Your task to perform on an android device: turn on bluetooth scan Image 0: 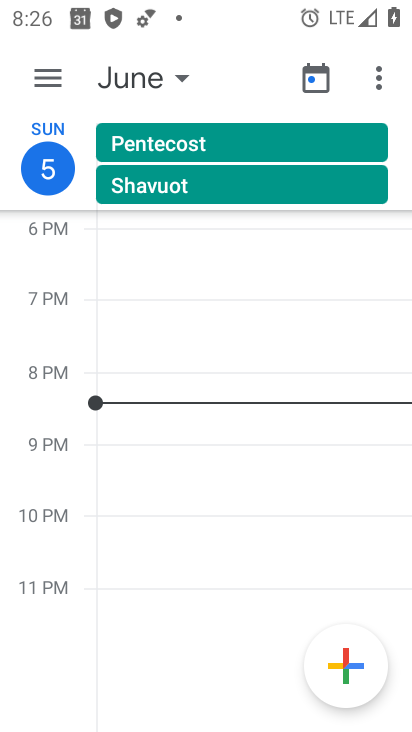
Step 0: press home button
Your task to perform on an android device: turn on bluetooth scan Image 1: 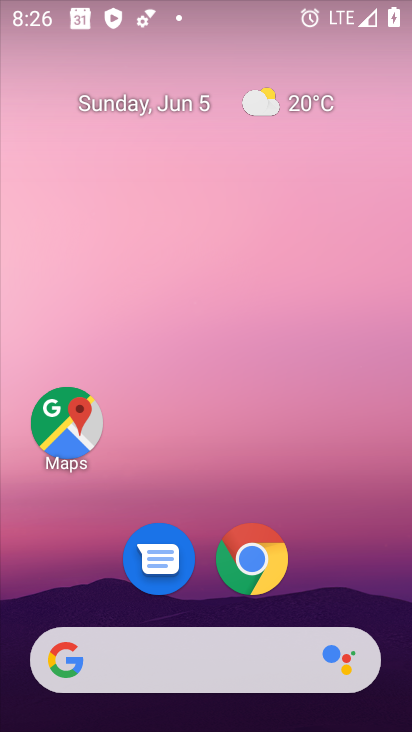
Step 1: drag from (364, 464) to (318, 152)
Your task to perform on an android device: turn on bluetooth scan Image 2: 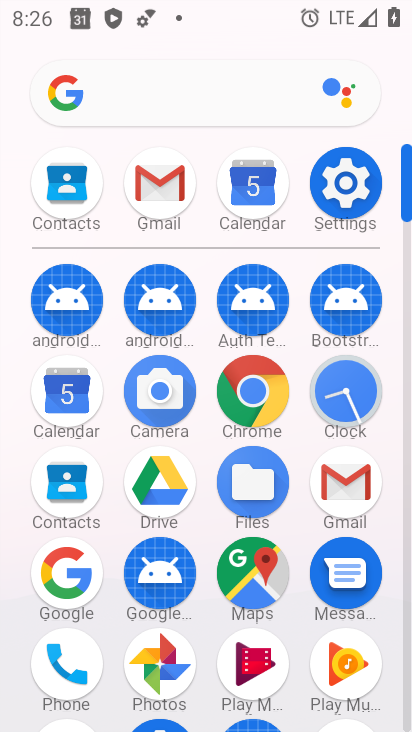
Step 2: click (341, 168)
Your task to perform on an android device: turn on bluetooth scan Image 3: 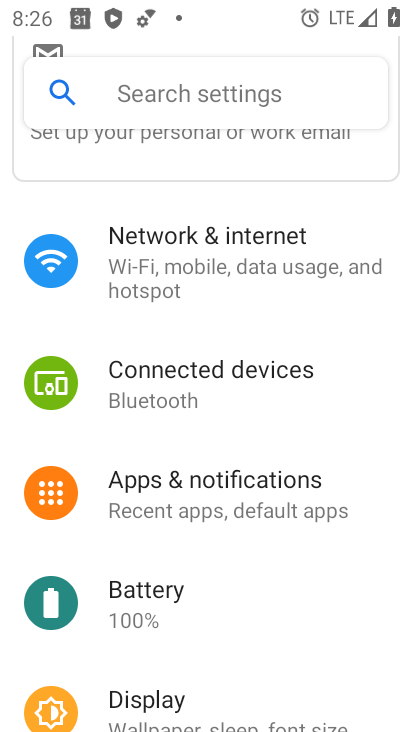
Step 3: drag from (289, 555) to (357, 193)
Your task to perform on an android device: turn on bluetooth scan Image 4: 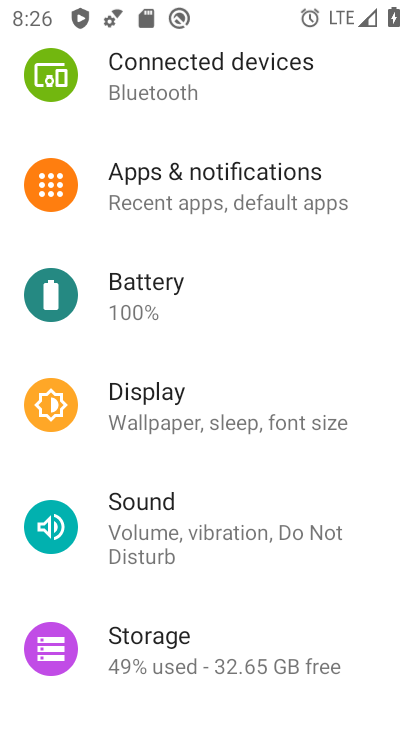
Step 4: drag from (184, 270) to (246, 122)
Your task to perform on an android device: turn on bluetooth scan Image 5: 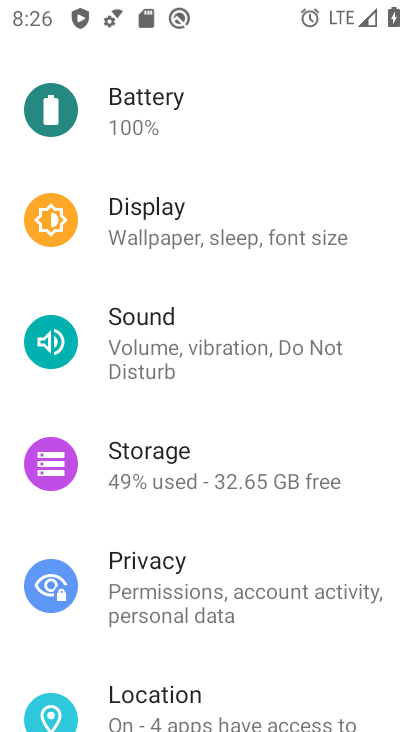
Step 5: drag from (193, 564) to (281, 250)
Your task to perform on an android device: turn on bluetooth scan Image 6: 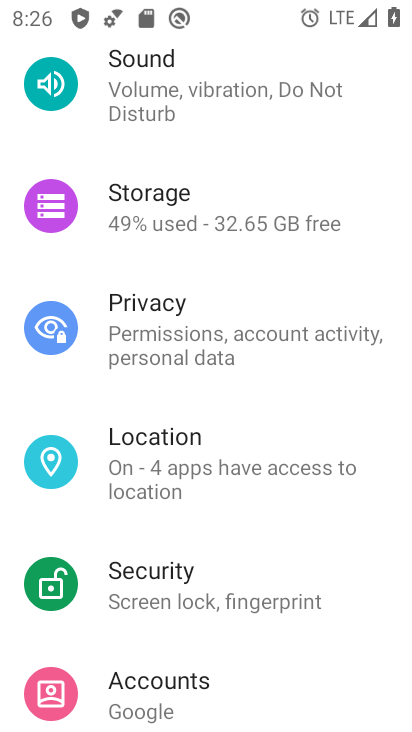
Step 6: click (201, 469)
Your task to perform on an android device: turn on bluetooth scan Image 7: 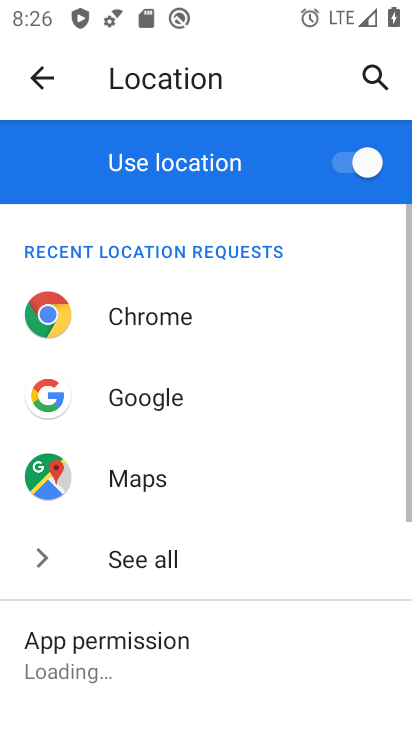
Step 7: drag from (222, 639) to (311, 185)
Your task to perform on an android device: turn on bluetooth scan Image 8: 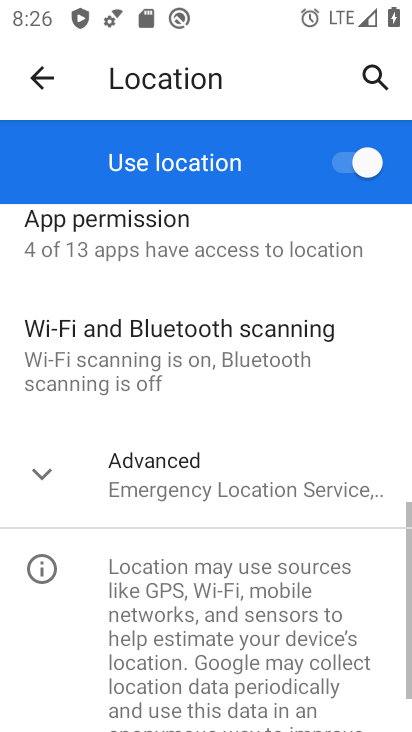
Step 8: click (191, 477)
Your task to perform on an android device: turn on bluetooth scan Image 9: 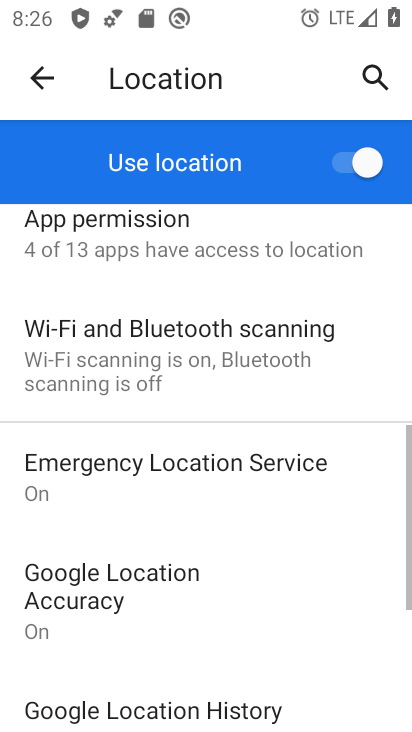
Step 9: drag from (286, 629) to (324, 181)
Your task to perform on an android device: turn on bluetooth scan Image 10: 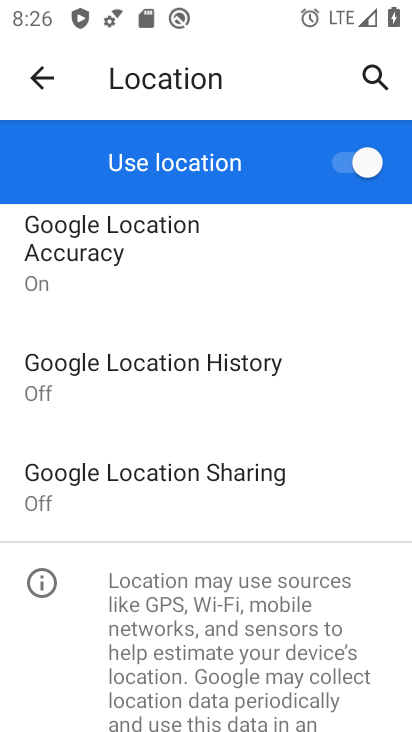
Step 10: drag from (190, 285) to (212, 558)
Your task to perform on an android device: turn on bluetooth scan Image 11: 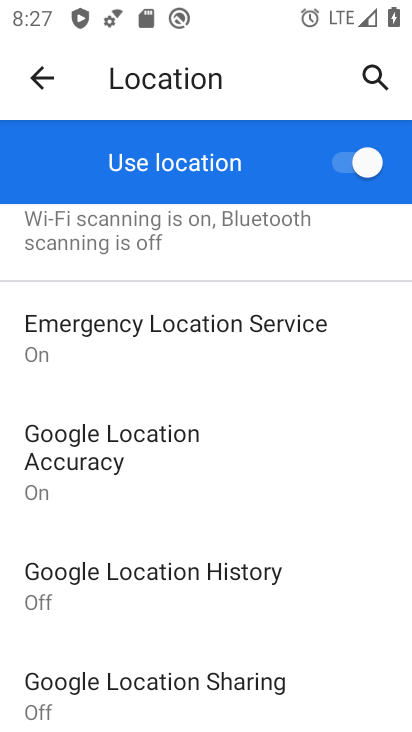
Step 11: click (183, 244)
Your task to perform on an android device: turn on bluetooth scan Image 12: 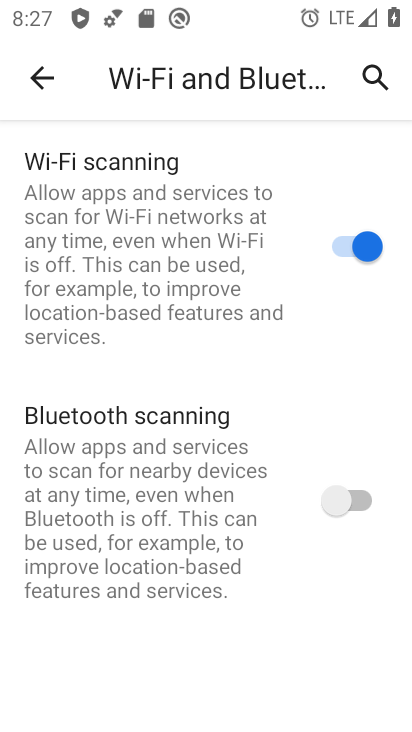
Step 12: click (341, 503)
Your task to perform on an android device: turn on bluetooth scan Image 13: 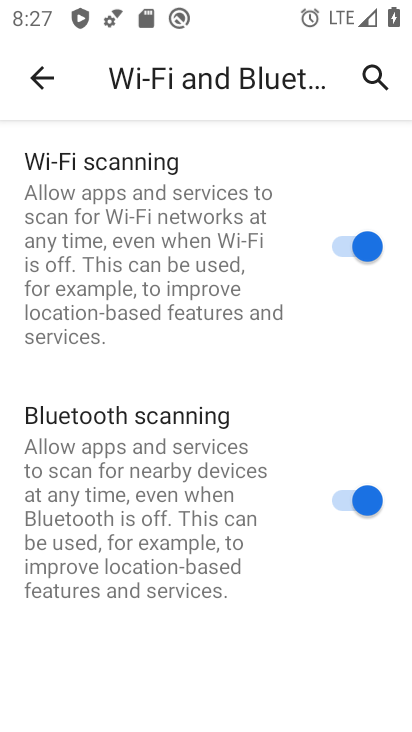
Step 13: task complete